Your task to perform on an android device: toggle location history Image 0: 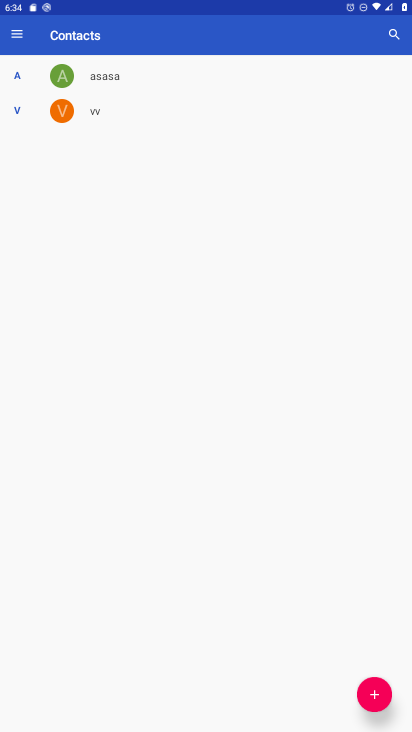
Step 0: press home button
Your task to perform on an android device: toggle location history Image 1: 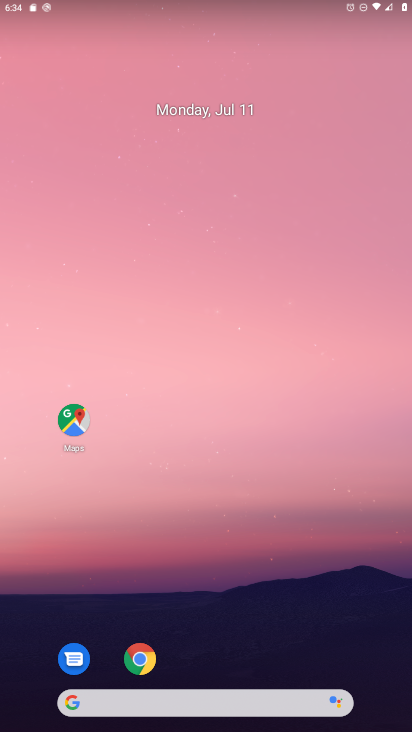
Step 1: click (77, 425)
Your task to perform on an android device: toggle location history Image 2: 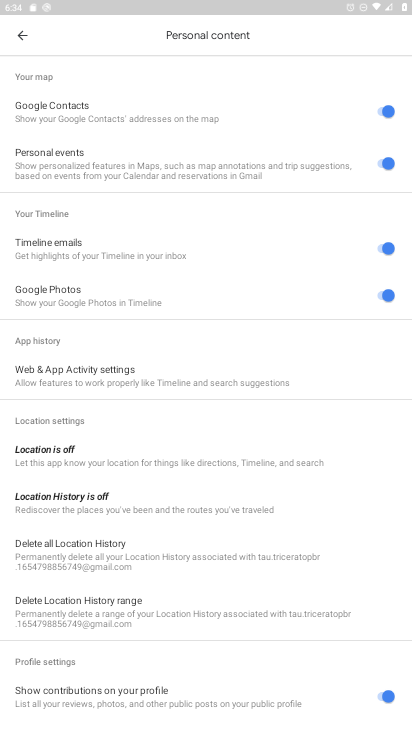
Step 2: click (59, 493)
Your task to perform on an android device: toggle location history Image 3: 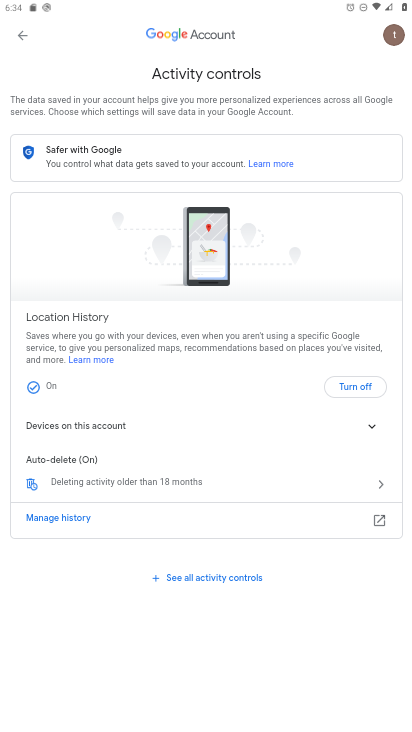
Step 3: click (353, 382)
Your task to perform on an android device: toggle location history Image 4: 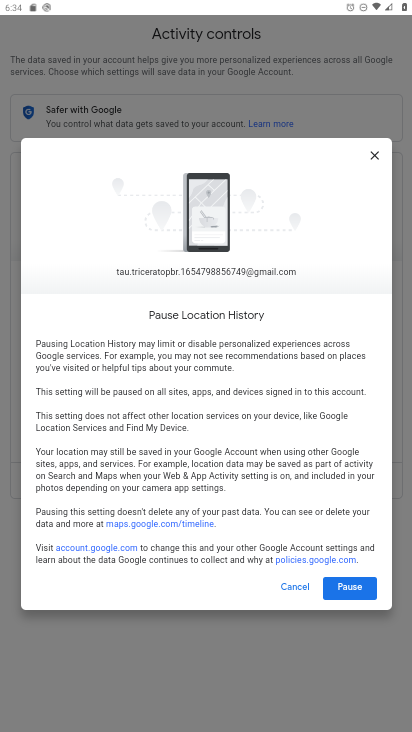
Step 4: click (350, 586)
Your task to perform on an android device: toggle location history Image 5: 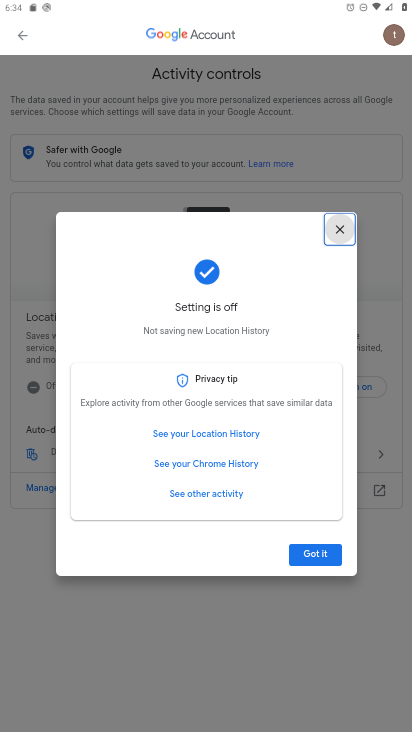
Step 5: click (316, 560)
Your task to perform on an android device: toggle location history Image 6: 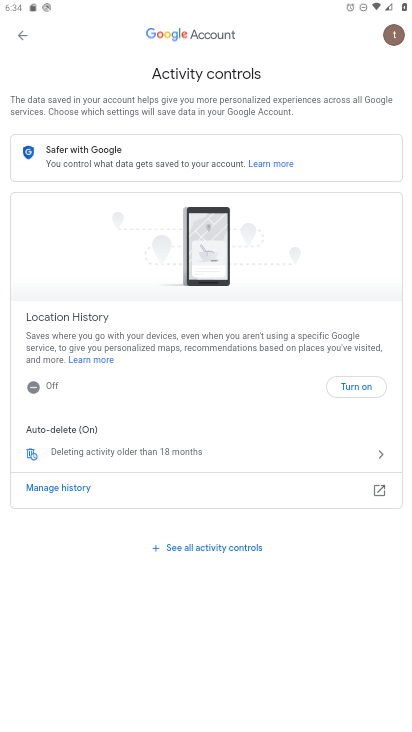
Step 6: task complete